Your task to perform on an android device: Check the weather Image 0: 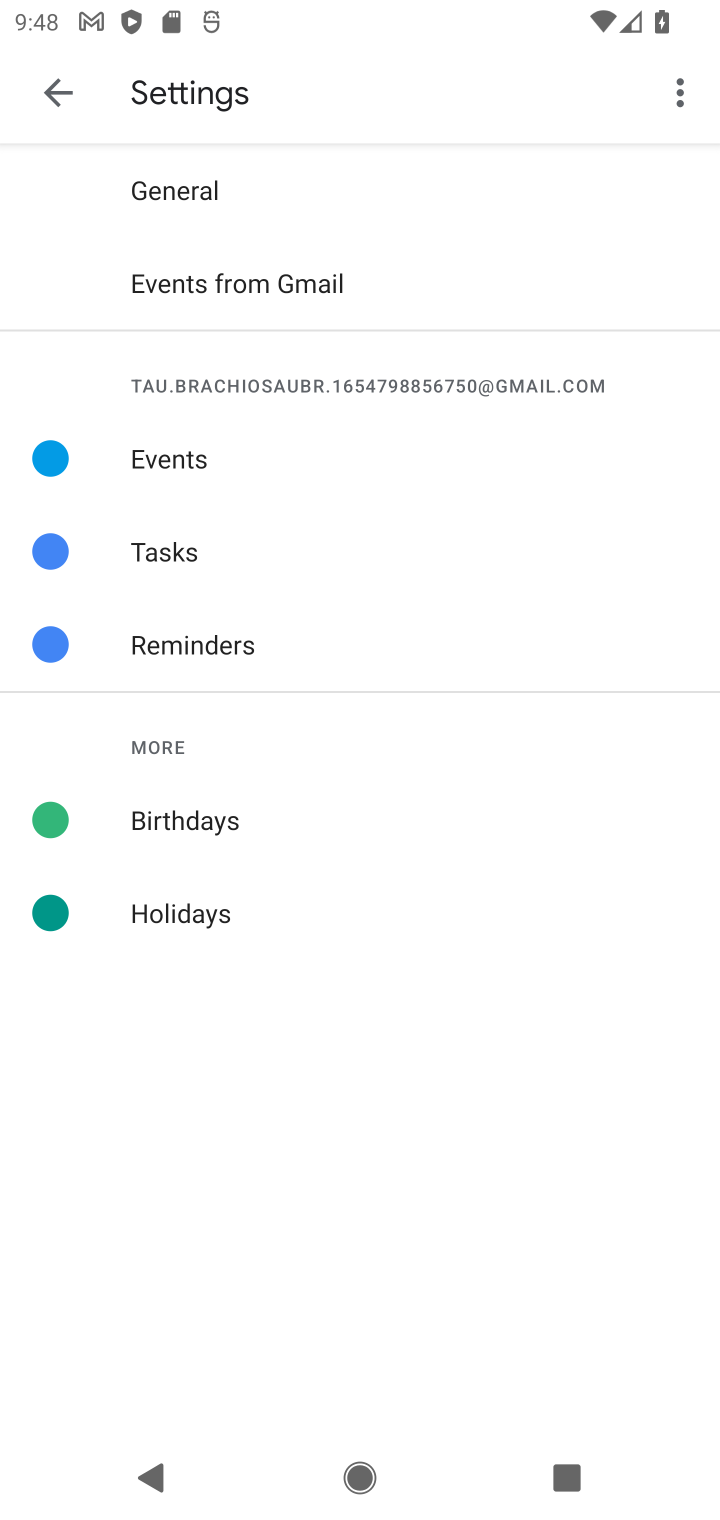
Step 0: drag from (302, 1312) to (318, 822)
Your task to perform on an android device: Check the weather Image 1: 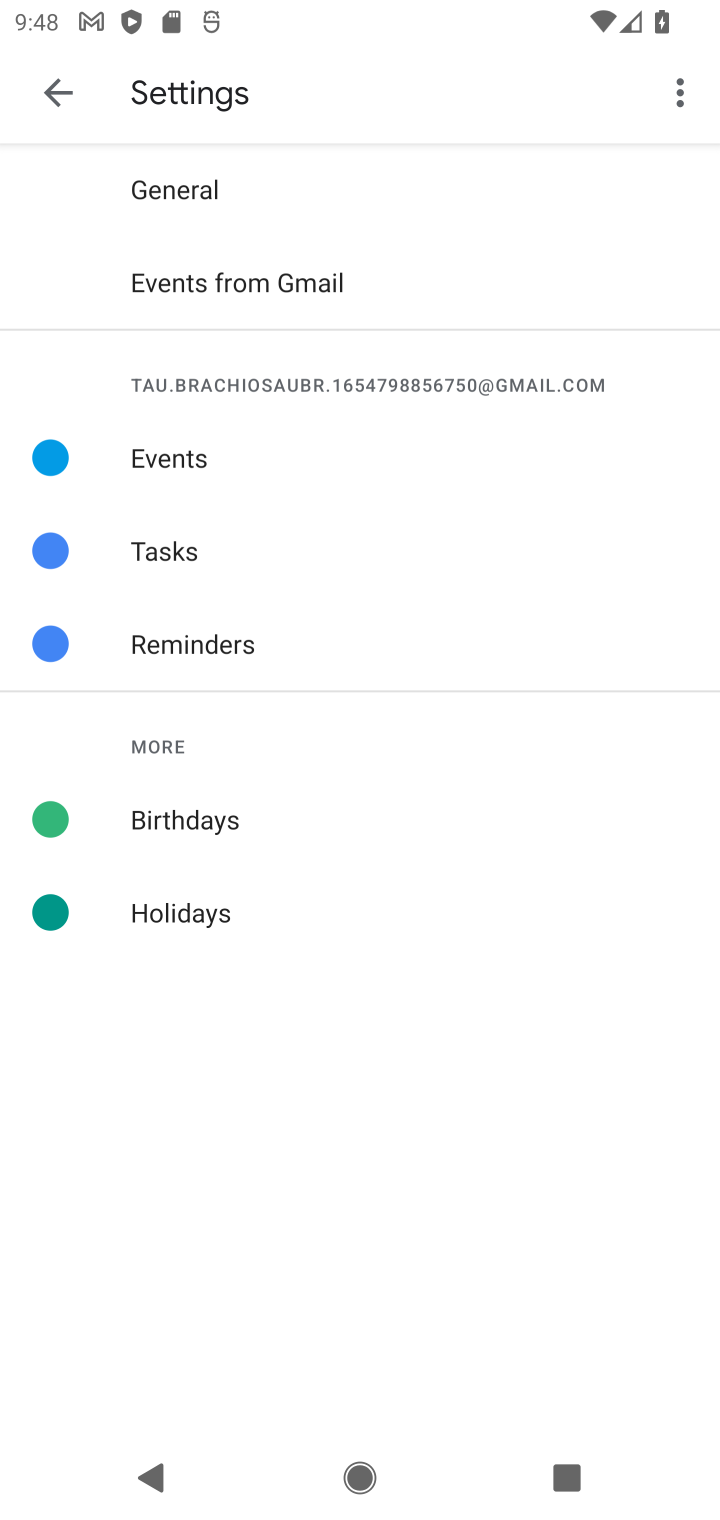
Step 1: press home button
Your task to perform on an android device: Check the weather Image 2: 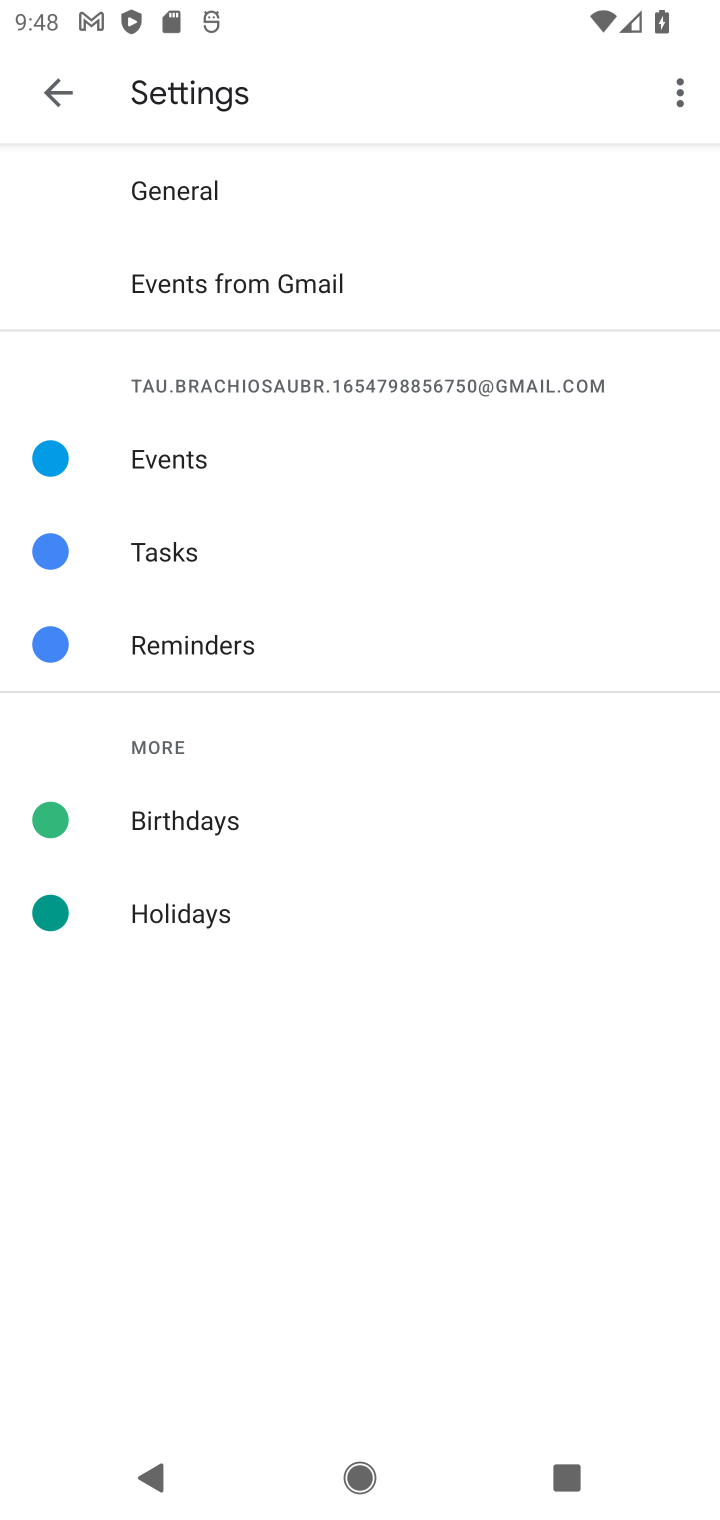
Step 2: drag from (339, 377) to (384, 59)
Your task to perform on an android device: Check the weather Image 3: 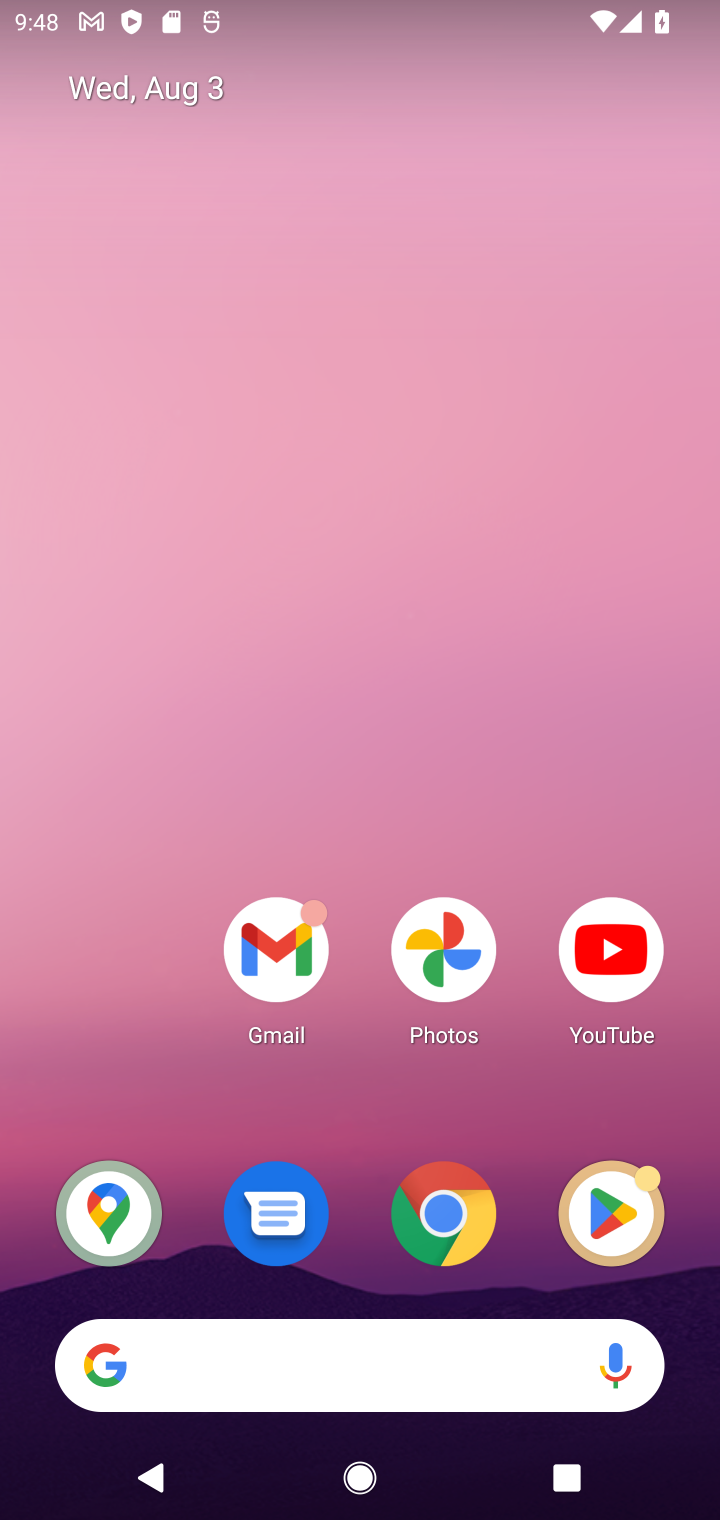
Step 3: drag from (358, 1227) to (680, 15)
Your task to perform on an android device: Check the weather Image 4: 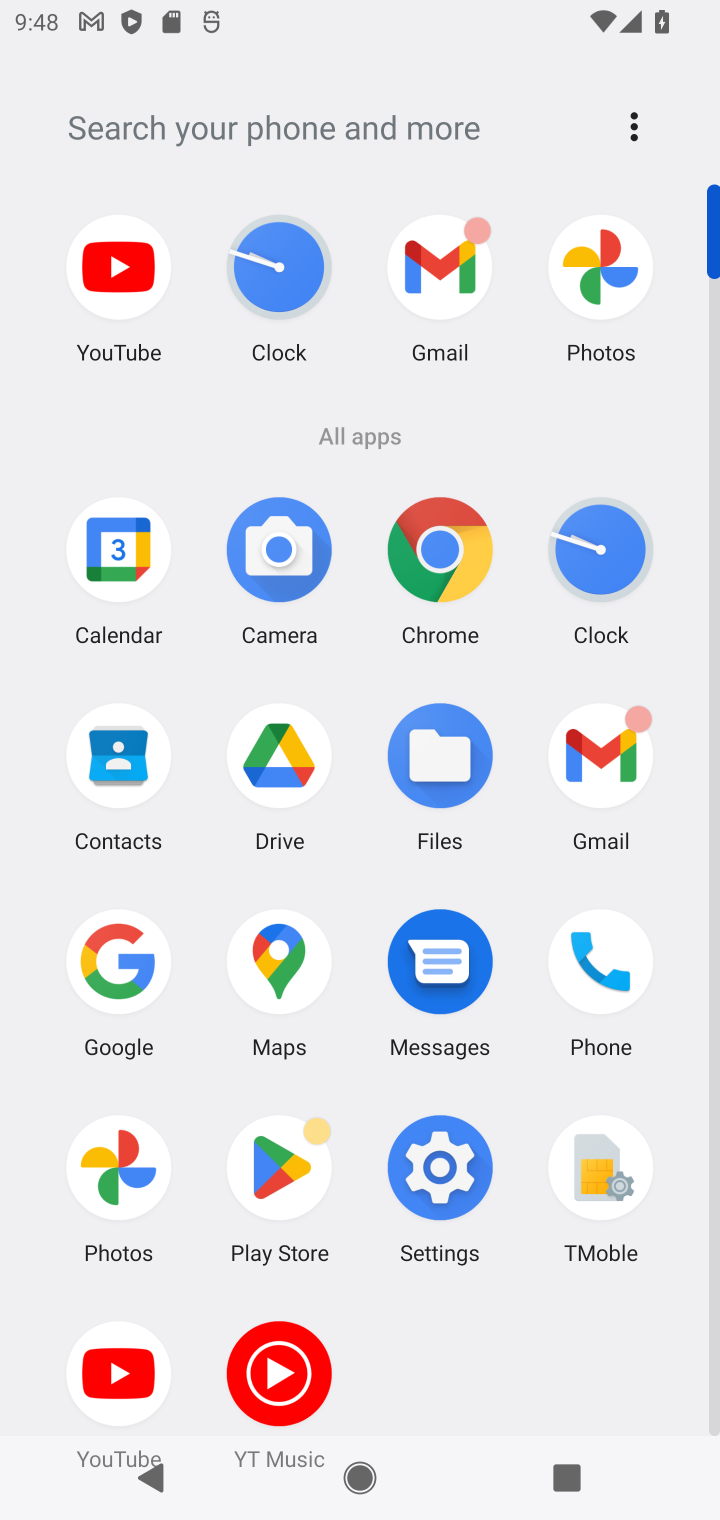
Step 4: click (281, 152)
Your task to perform on an android device: Check the weather Image 5: 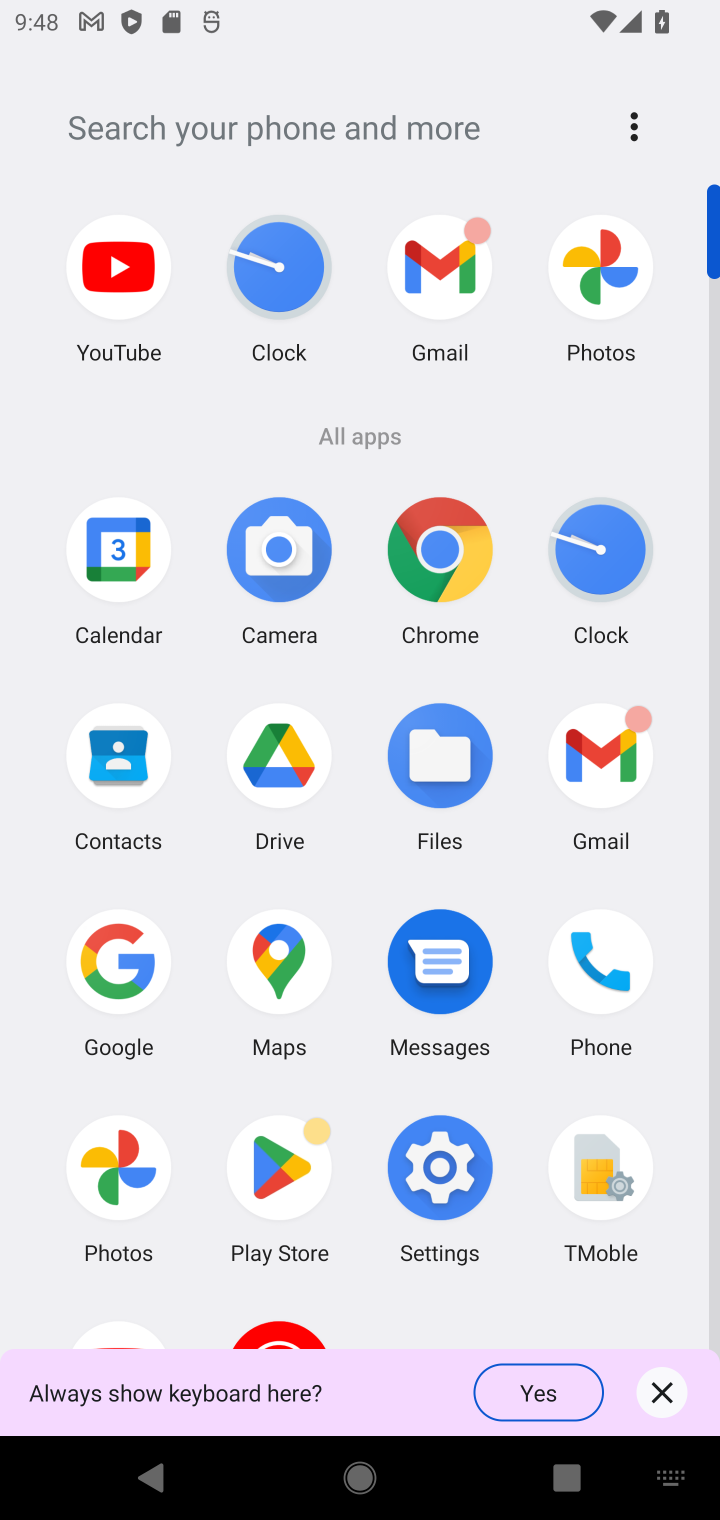
Step 5: type "weather"
Your task to perform on an android device: Check the weather Image 6: 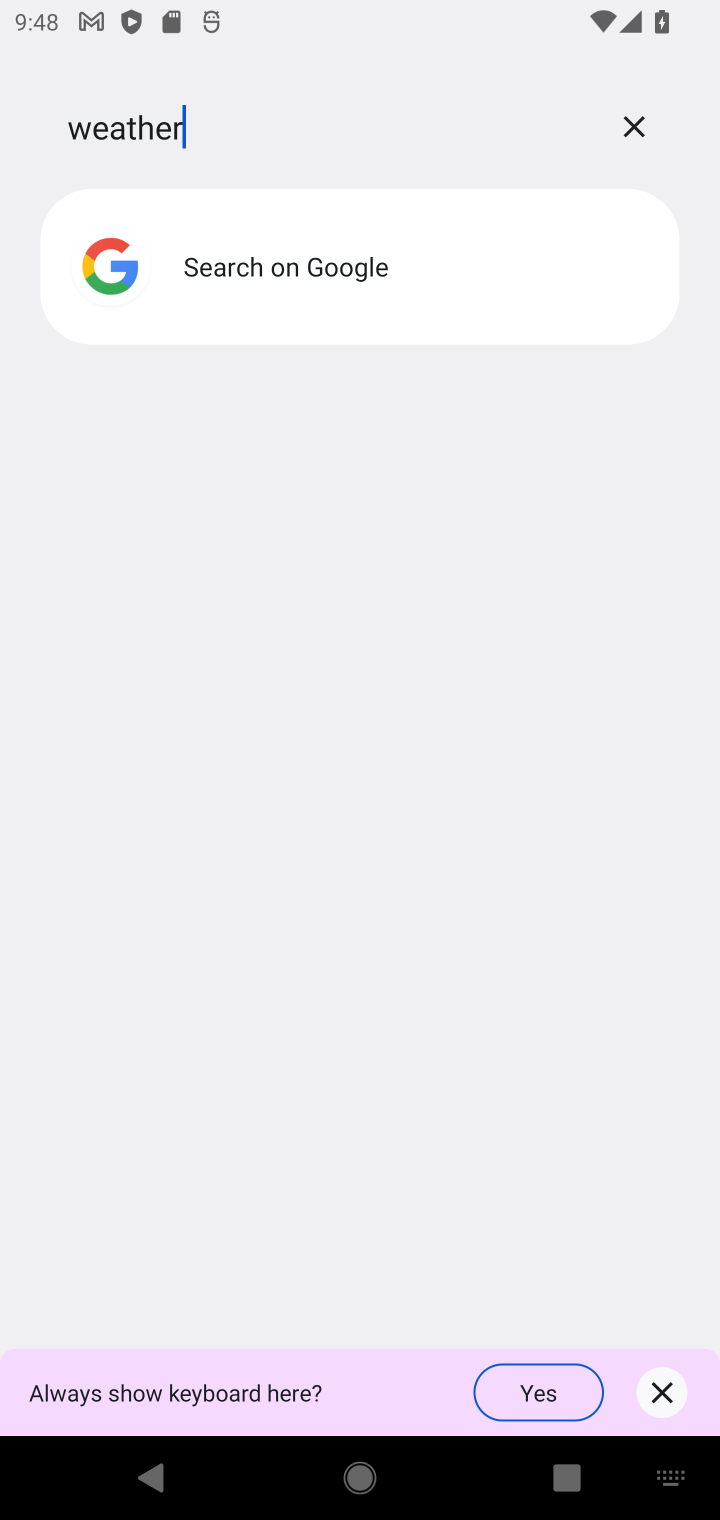
Step 6: click (297, 343)
Your task to perform on an android device: Check the weather Image 7: 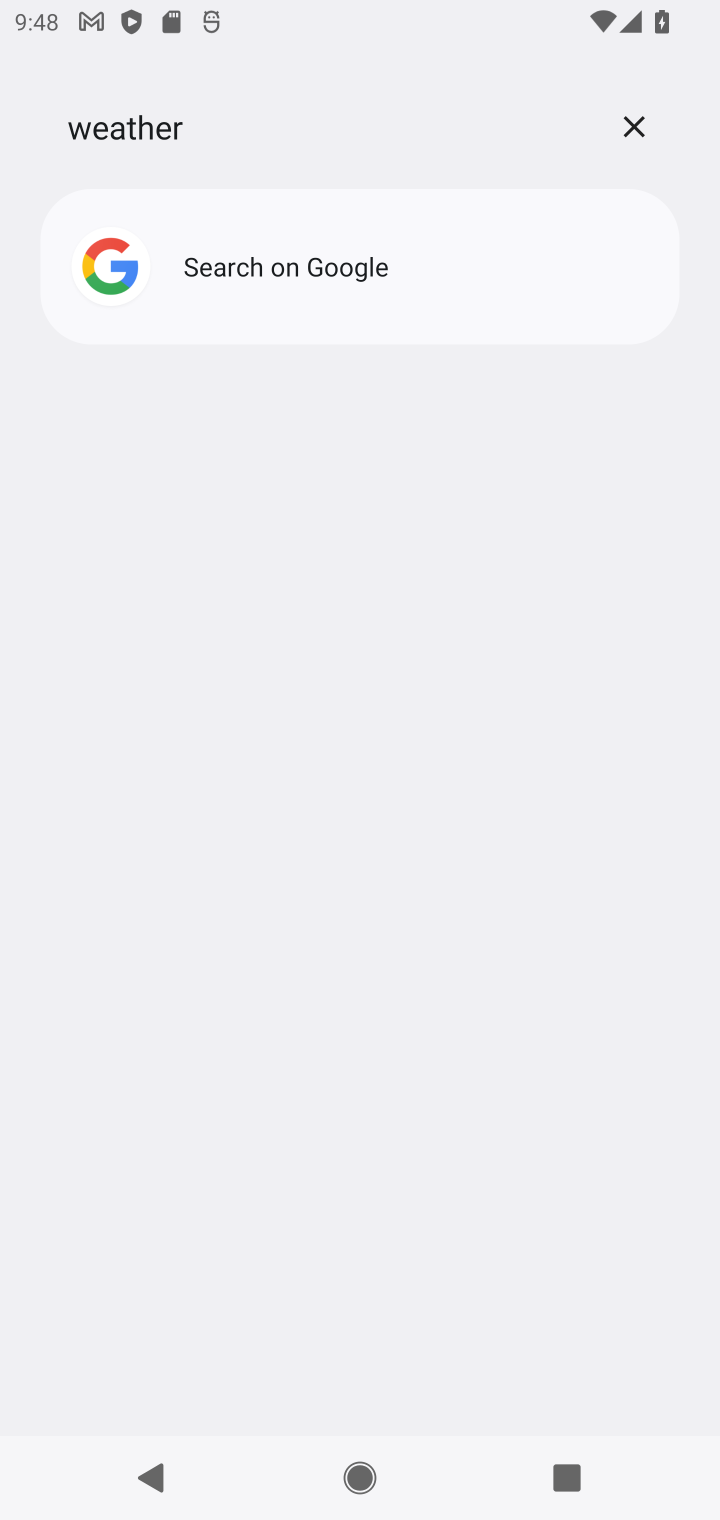
Step 7: click (204, 262)
Your task to perform on an android device: Check the weather Image 8: 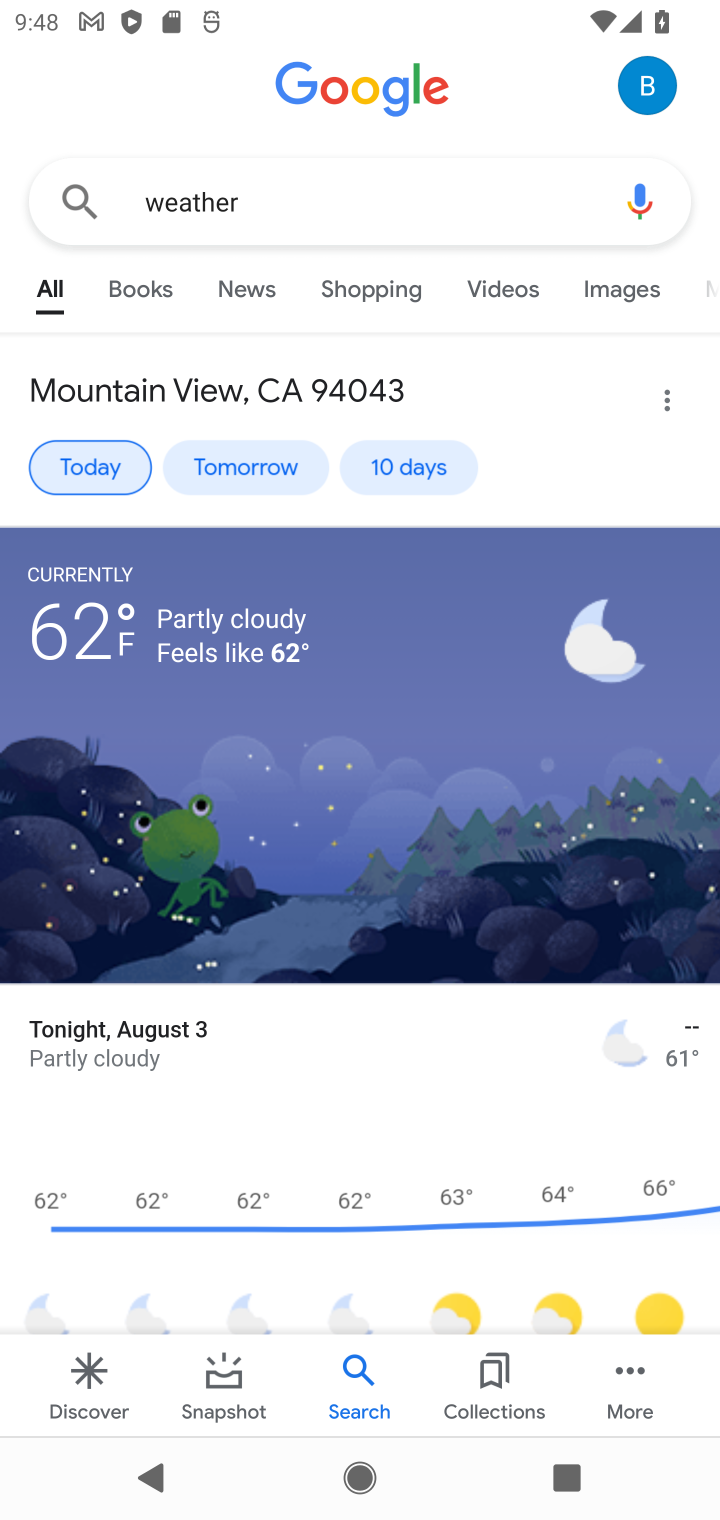
Step 8: task complete